Your task to perform on an android device: Open the Play Movies app and select the watchlist tab. Image 0: 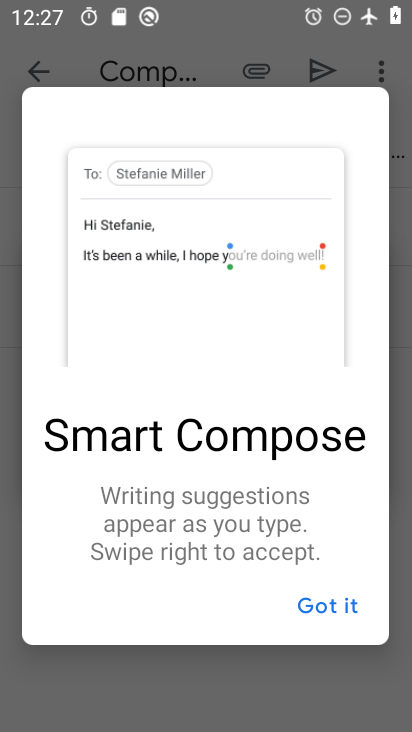
Step 0: press home button
Your task to perform on an android device: Open the Play Movies app and select the watchlist tab. Image 1: 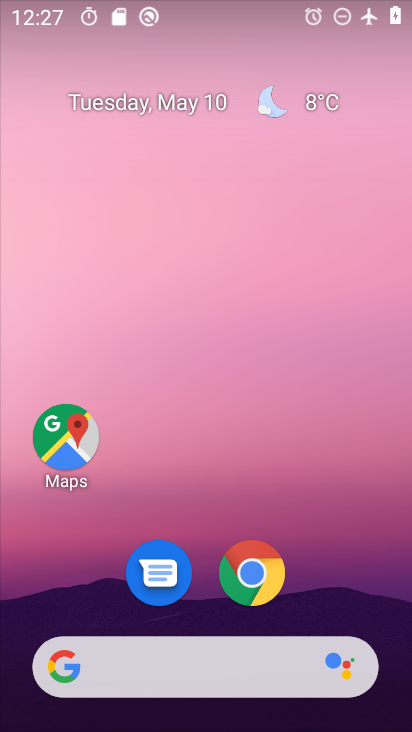
Step 1: drag from (330, 505) to (325, 172)
Your task to perform on an android device: Open the Play Movies app and select the watchlist tab. Image 2: 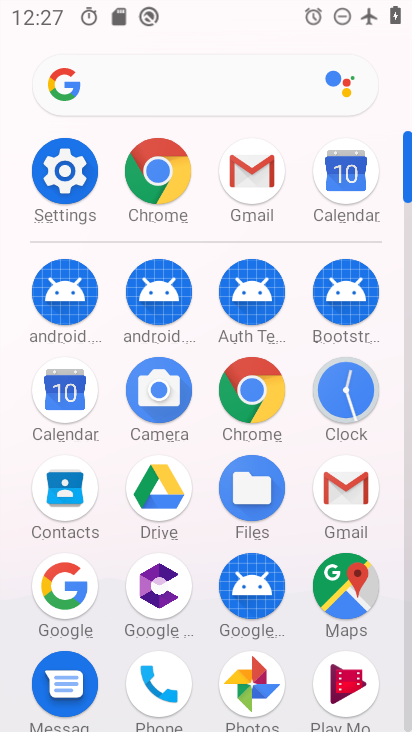
Step 2: click (347, 697)
Your task to perform on an android device: Open the Play Movies app and select the watchlist tab. Image 3: 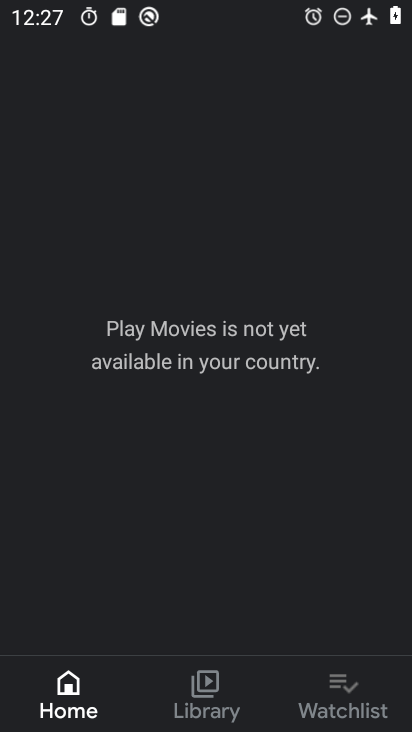
Step 3: click (343, 684)
Your task to perform on an android device: Open the Play Movies app and select the watchlist tab. Image 4: 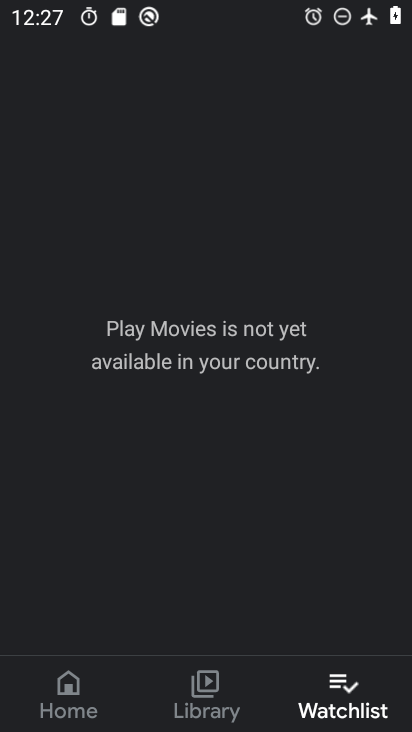
Step 4: task complete